Your task to perform on an android device: Open maps Image 0: 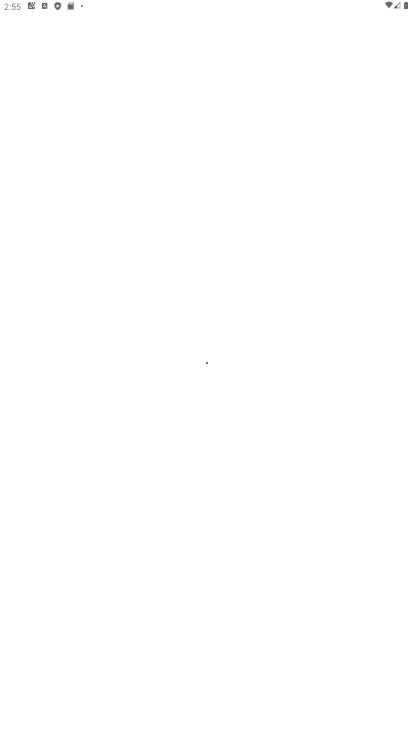
Step 0: press home button
Your task to perform on an android device: Open maps Image 1: 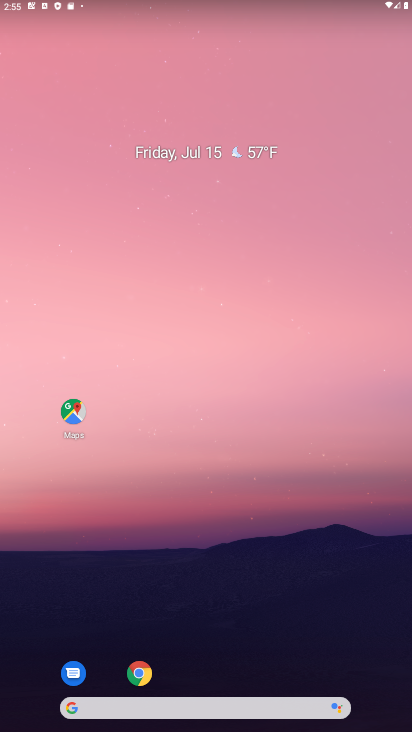
Step 1: click (73, 411)
Your task to perform on an android device: Open maps Image 2: 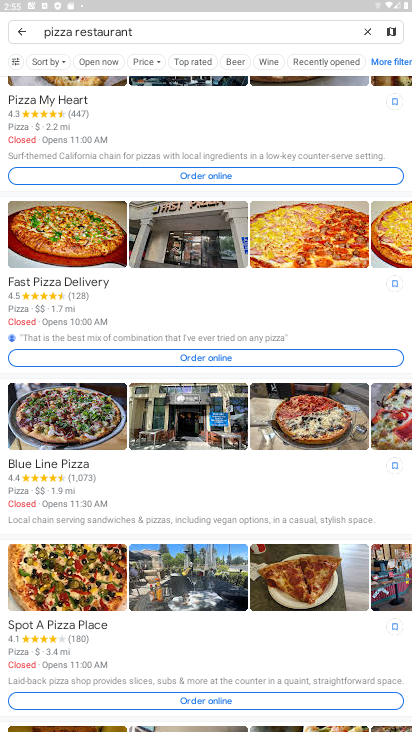
Step 2: click (362, 29)
Your task to perform on an android device: Open maps Image 3: 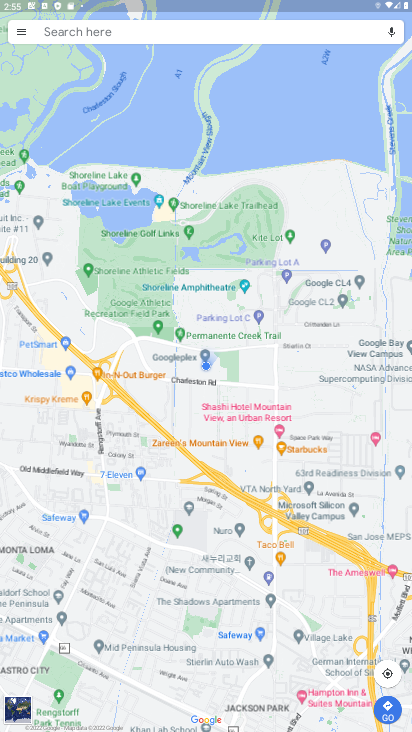
Step 3: task complete